Your task to perform on an android device: check storage Image 0: 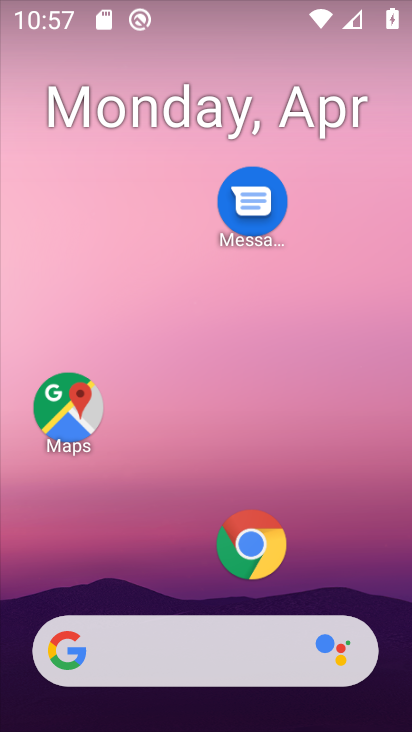
Step 0: drag from (195, 565) to (255, 81)
Your task to perform on an android device: check storage Image 1: 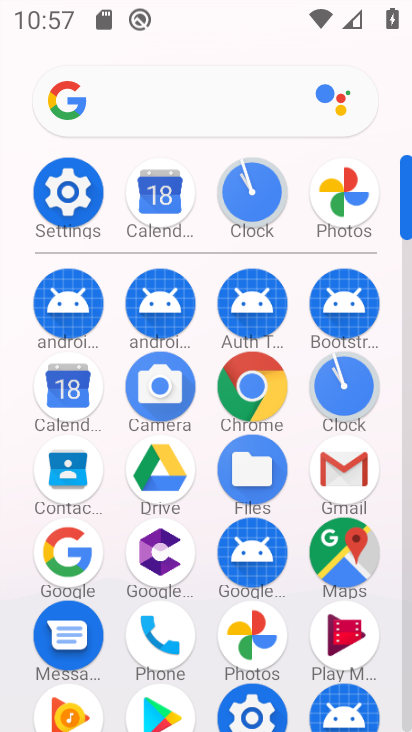
Step 1: click (63, 199)
Your task to perform on an android device: check storage Image 2: 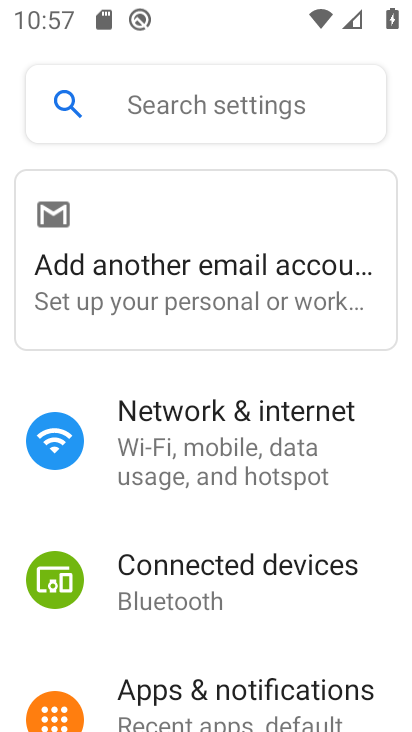
Step 2: drag from (261, 702) to (258, 442)
Your task to perform on an android device: check storage Image 3: 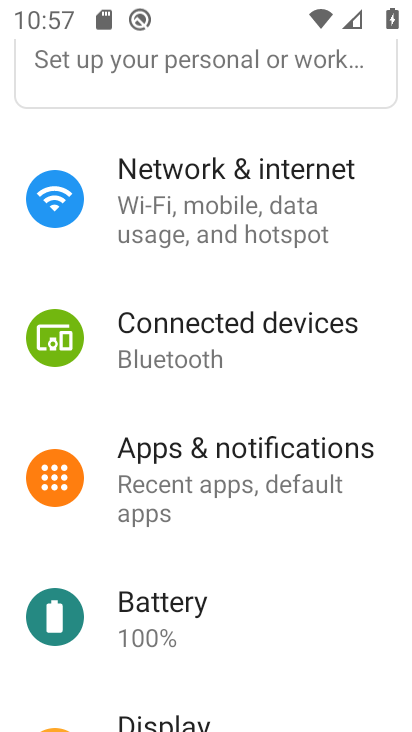
Step 3: drag from (230, 624) to (248, 148)
Your task to perform on an android device: check storage Image 4: 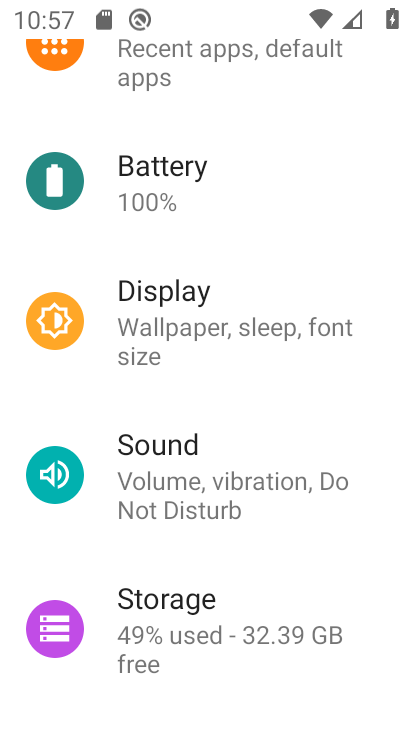
Step 4: click (221, 604)
Your task to perform on an android device: check storage Image 5: 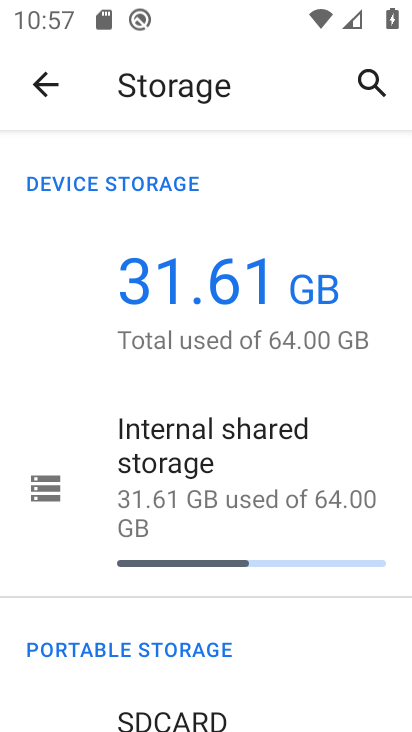
Step 5: task complete